Your task to perform on an android device: open chrome and create a bookmark for the current page Image 0: 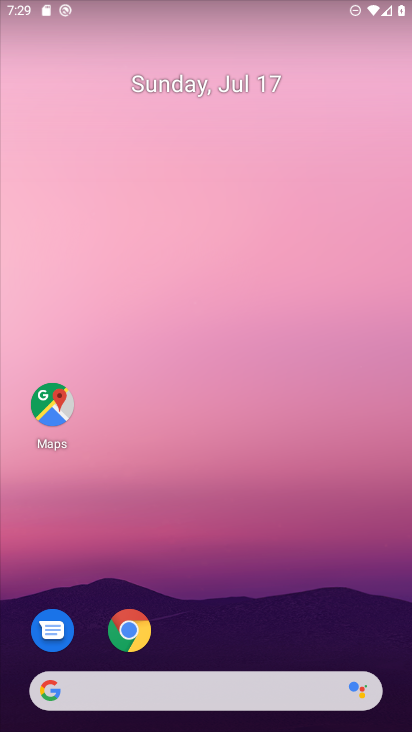
Step 0: drag from (346, 592) to (205, 10)
Your task to perform on an android device: open chrome and create a bookmark for the current page Image 1: 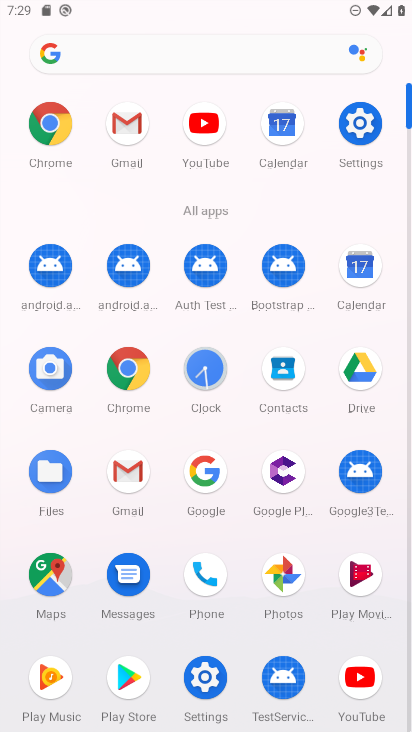
Step 1: click (68, 119)
Your task to perform on an android device: open chrome and create a bookmark for the current page Image 2: 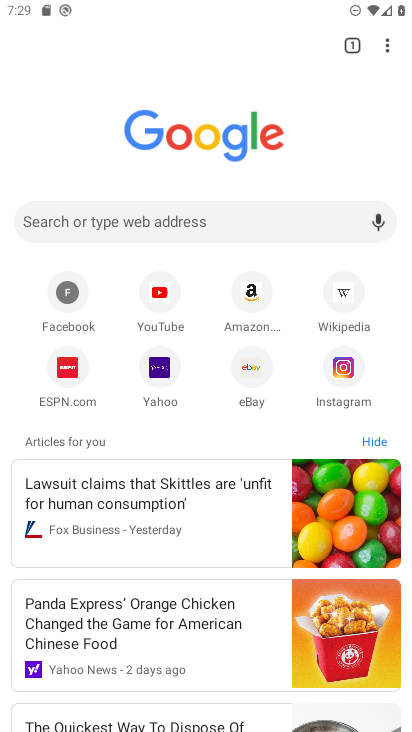
Step 2: click (392, 39)
Your task to perform on an android device: open chrome and create a bookmark for the current page Image 3: 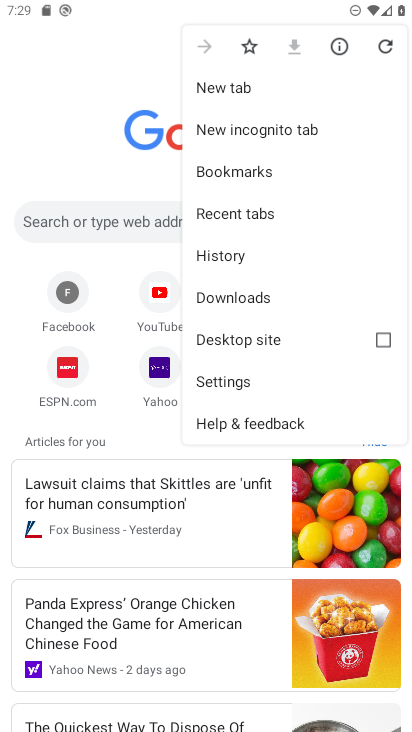
Step 3: click (243, 48)
Your task to perform on an android device: open chrome and create a bookmark for the current page Image 4: 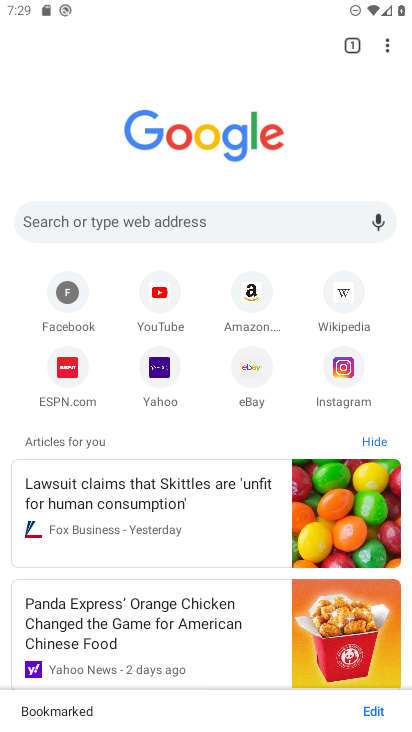
Step 4: task complete